Your task to perform on an android device: empty trash in google photos Image 0: 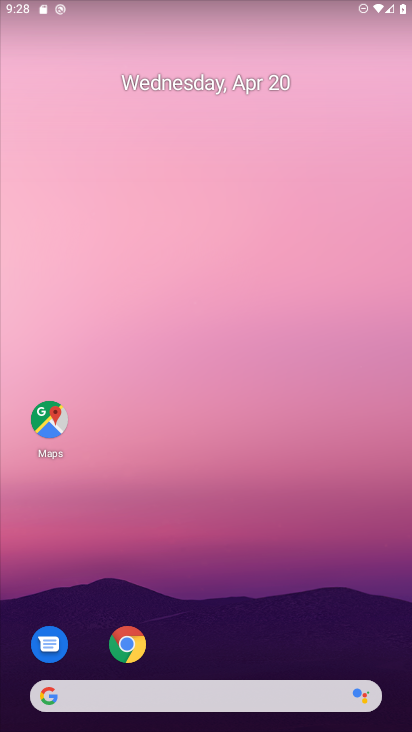
Step 0: press home button
Your task to perform on an android device: empty trash in google photos Image 1: 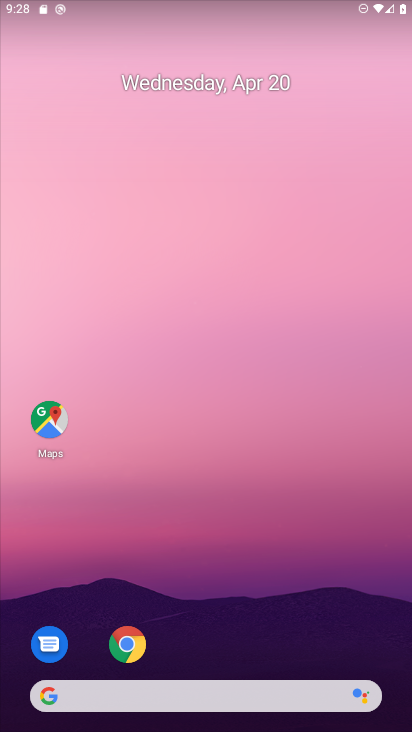
Step 1: drag from (310, 545) to (265, 72)
Your task to perform on an android device: empty trash in google photos Image 2: 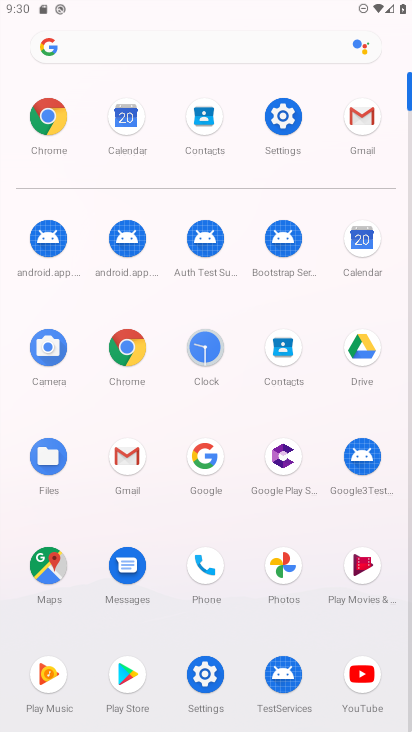
Step 2: click (272, 581)
Your task to perform on an android device: empty trash in google photos Image 3: 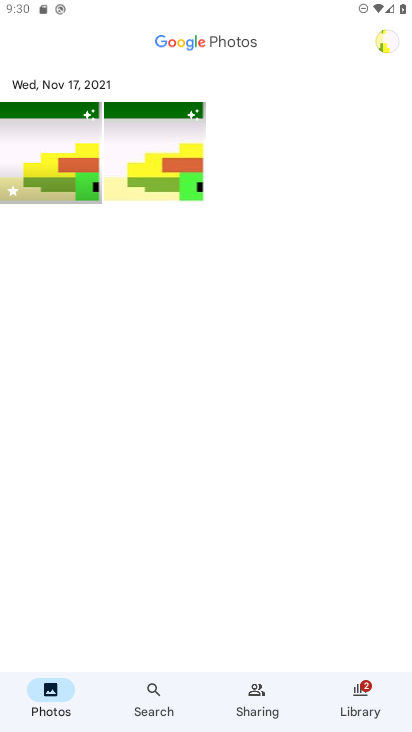
Step 3: click (355, 701)
Your task to perform on an android device: empty trash in google photos Image 4: 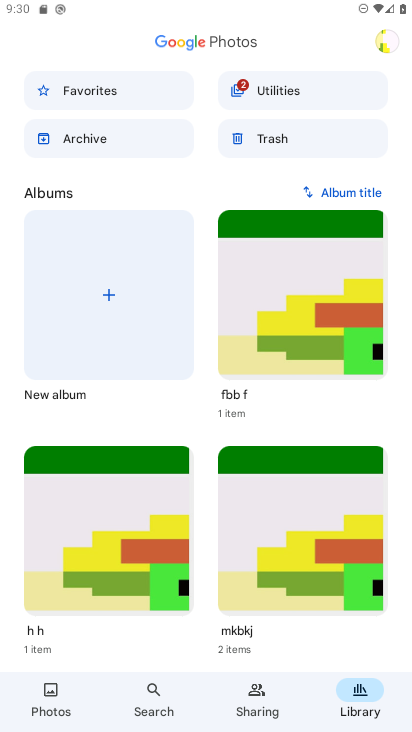
Step 4: click (286, 137)
Your task to perform on an android device: empty trash in google photos Image 5: 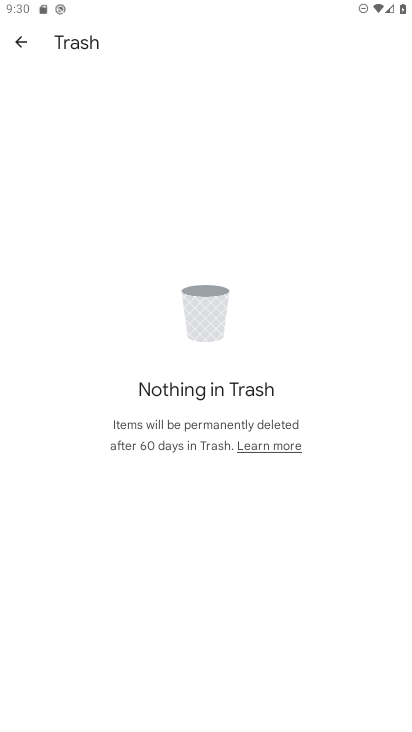
Step 5: task complete